Your task to perform on an android device: Go to Maps Image 0: 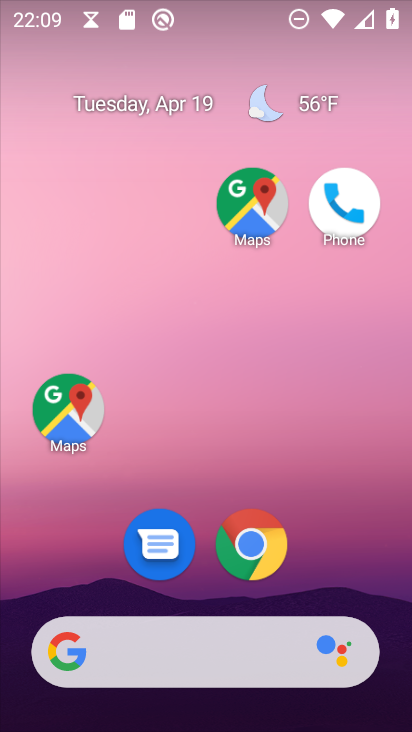
Step 0: drag from (277, 454) to (378, 64)
Your task to perform on an android device: Go to Maps Image 1: 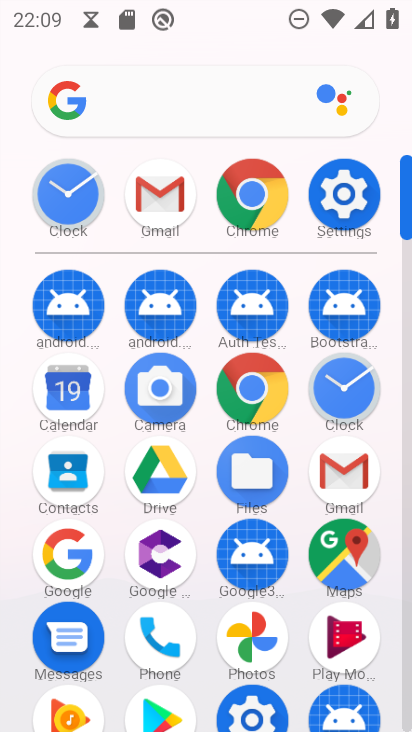
Step 1: drag from (187, 609) to (312, 194)
Your task to perform on an android device: Go to Maps Image 2: 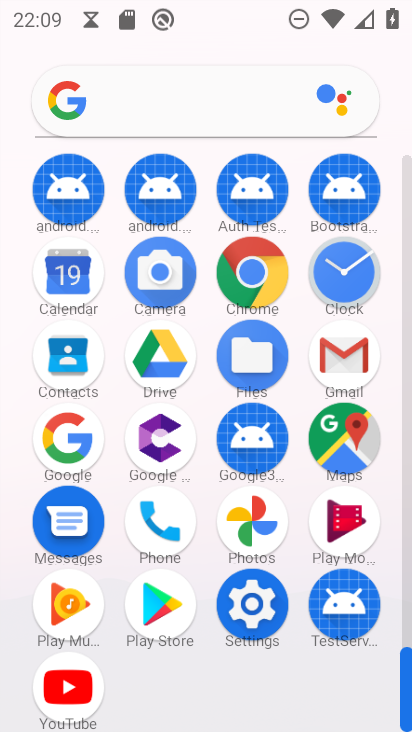
Step 2: click (343, 450)
Your task to perform on an android device: Go to Maps Image 3: 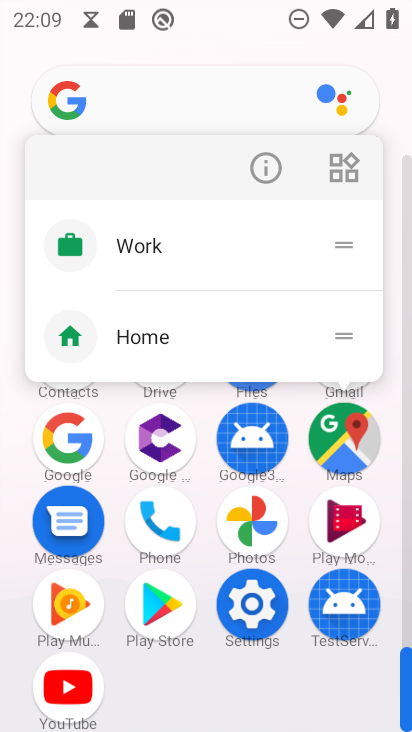
Step 3: click (343, 449)
Your task to perform on an android device: Go to Maps Image 4: 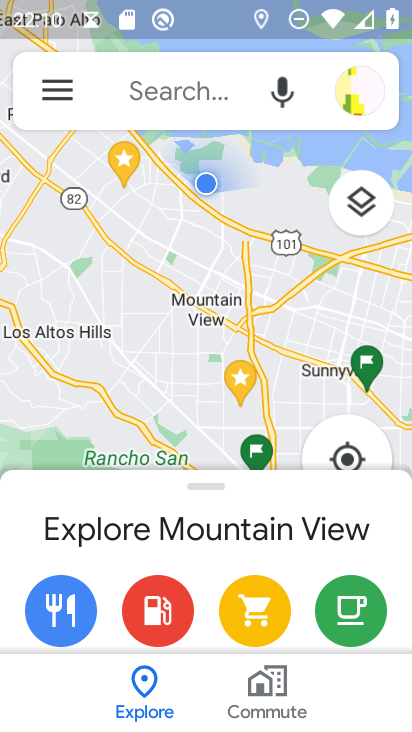
Step 4: task complete